Your task to perform on an android device: check out phone information Image 0: 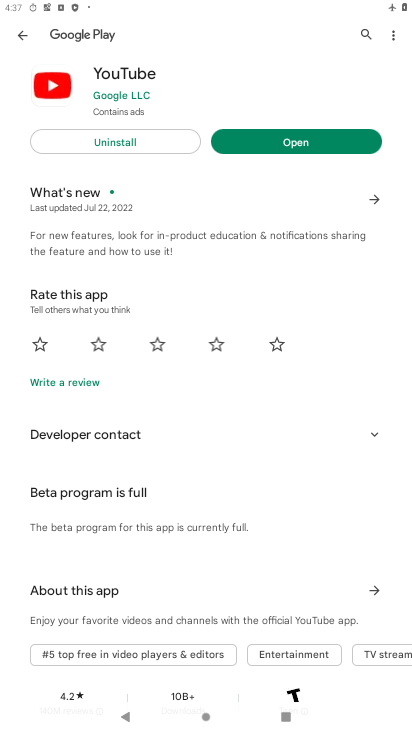
Step 0: press home button
Your task to perform on an android device: check out phone information Image 1: 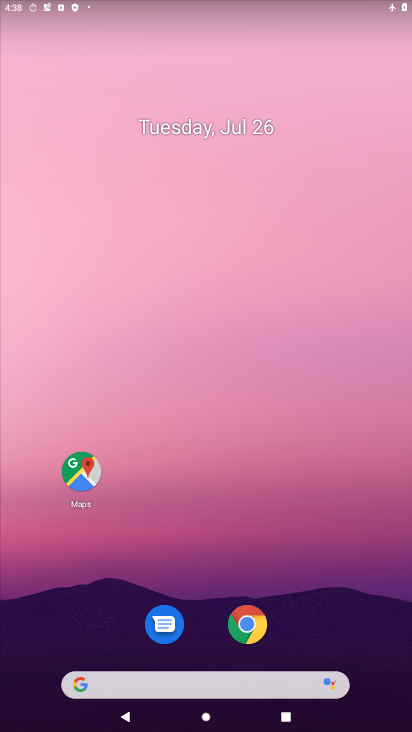
Step 1: drag from (255, 685) to (307, 70)
Your task to perform on an android device: check out phone information Image 2: 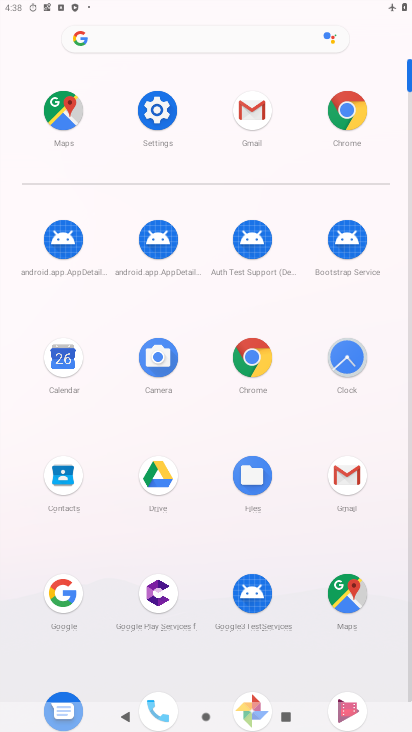
Step 2: drag from (314, 560) to (301, 184)
Your task to perform on an android device: check out phone information Image 3: 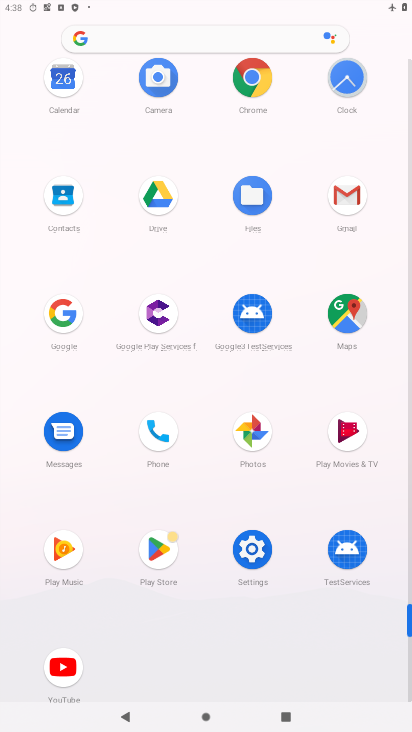
Step 3: click (236, 556)
Your task to perform on an android device: check out phone information Image 4: 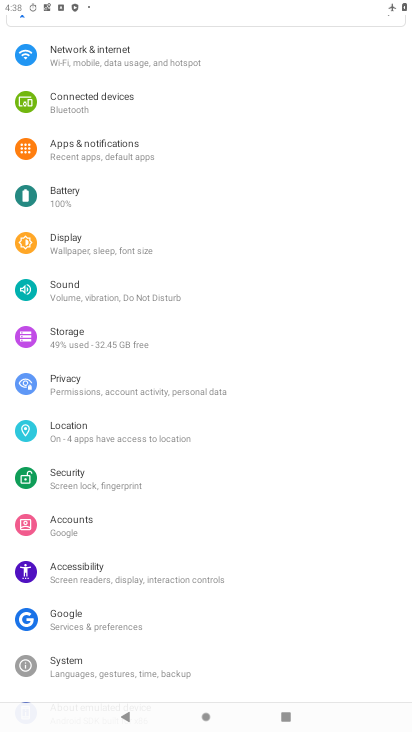
Step 4: drag from (218, 663) to (215, 164)
Your task to perform on an android device: check out phone information Image 5: 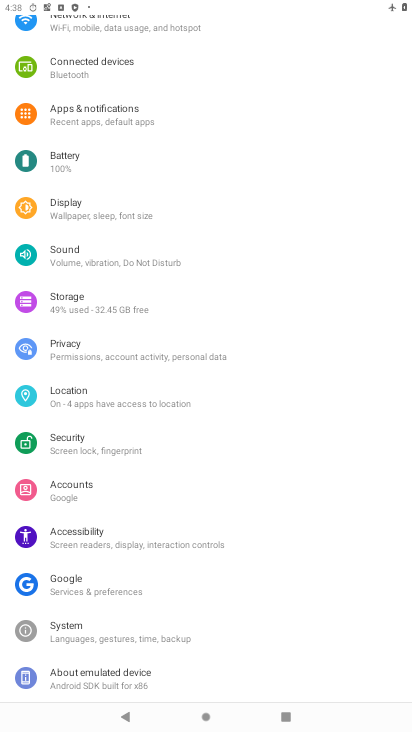
Step 5: click (115, 680)
Your task to perform on an android device: check out phone information Image 6: 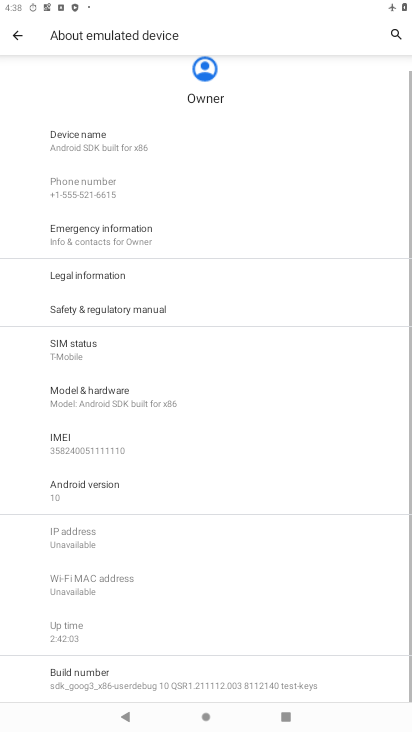
Step 6: task complete